Your task to perform on an android device: Open the Play Movies app and select the watchlist tab. Image 0: 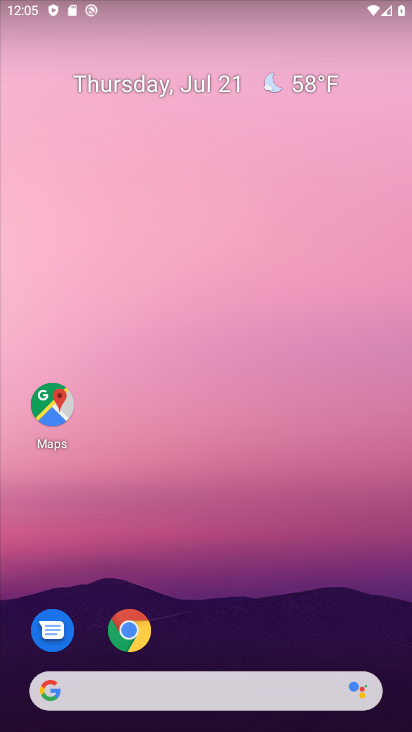
Step 0: drag from (222, 689) to (166, 229)
Your task to perform on an android device: Open the Play Movies app and select the watchlist tab. Image 1: 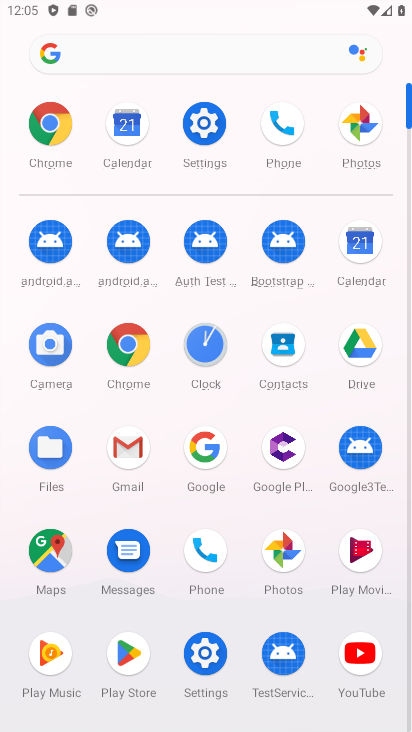
Step 1: click (368, 573)
Your task to perform on an android device: Open the Play Movies app and select the watchlist tab. Image 2: 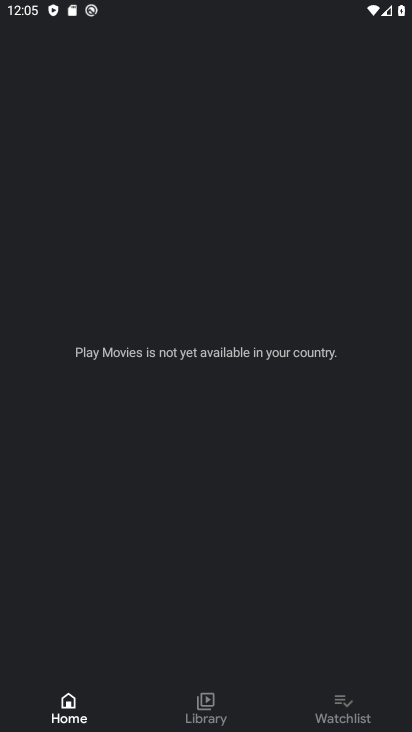
Step 2: click (348, 703)
Your task to perform on an android device: Open the Play Movies app and select the watchlist tab. Image 3: 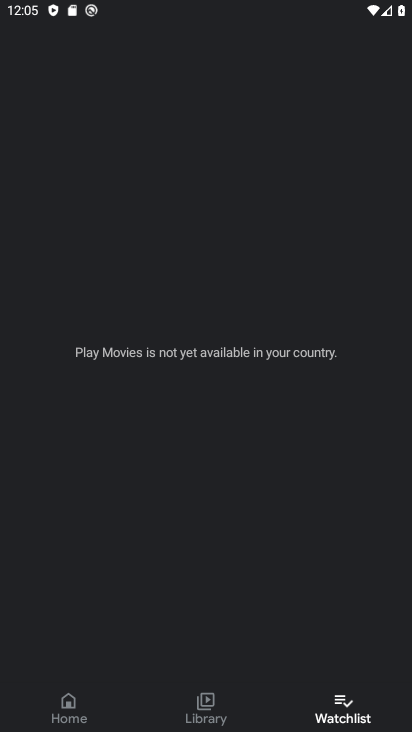
Step 3: task complete